Your task to perform on an android device: Open the map Image 0: 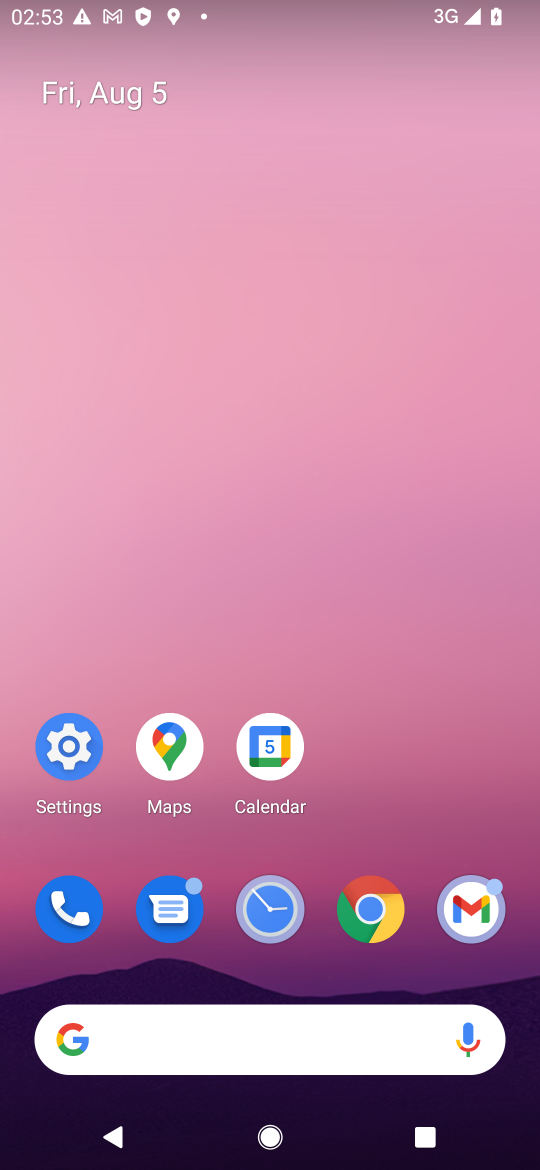
Step 0: click (161, 753)
Your task to perform on an android device: Open the map Image 1: 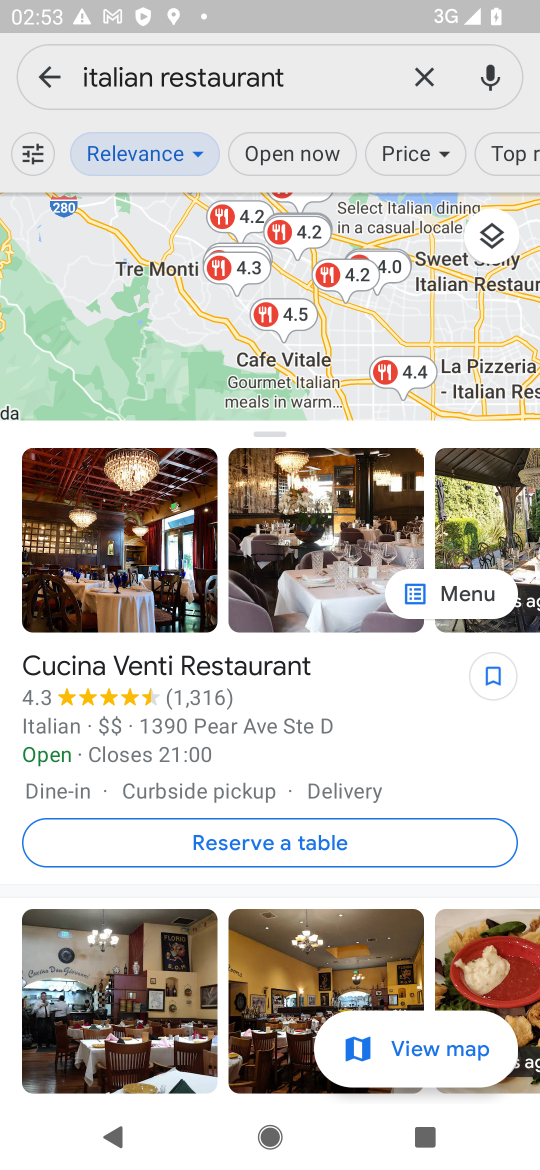
Step 1: task complete